Your task to perform on an android device: turn off improve location accuracy Image 0: 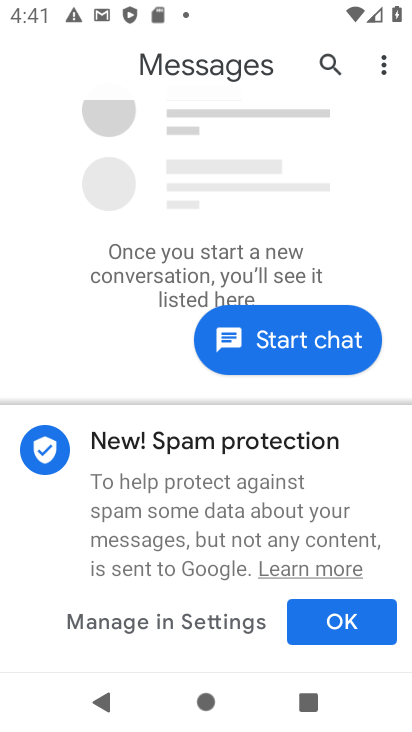
Step 0: press home button
Your task to perform on an android device: turn off improve location accuracy Image 1: 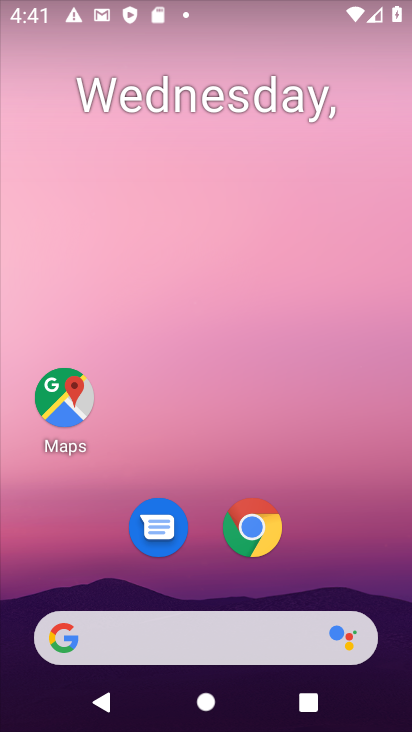
Step 1: drag from (207, 487) to (206, 219)
Your task to perform on an android device: turn off improve location accuracy Image 2: 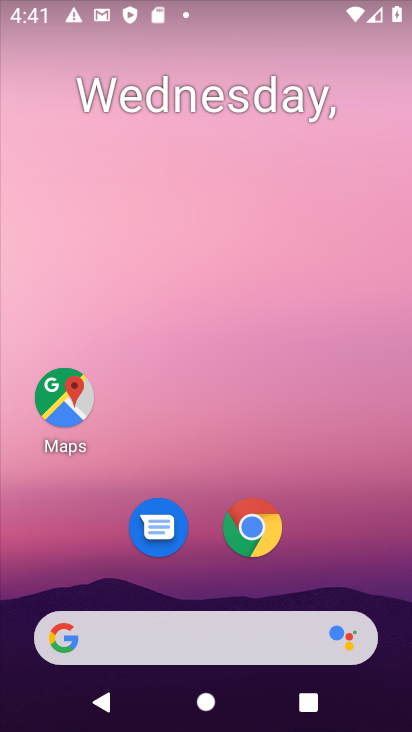
Step 2: drag from (188, 594) to (153, 187)
Your task to perform on an android device: turn off improve location accuracy Image 3: 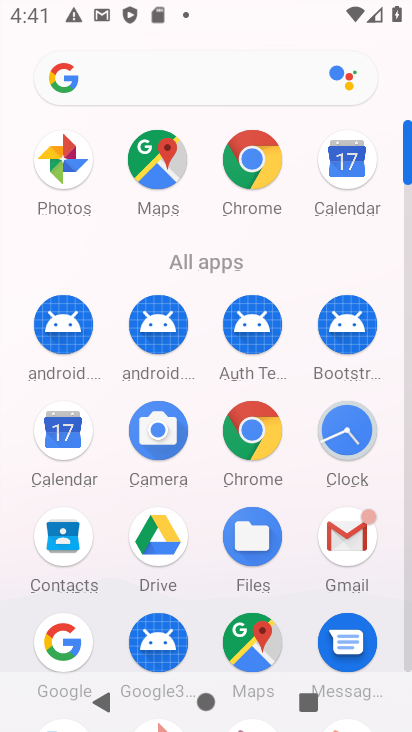
Step 3: drag from (90, 580) to (90, 306)
Your task to perform on an android device: turn off improve location accuracy Image 4: 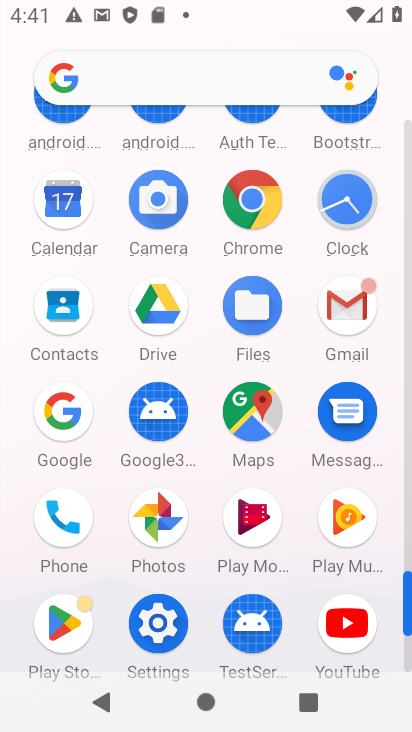
Step 4: click (158, 617)
Your task to perform on an android device: turn off improve location accuracy Image 5: 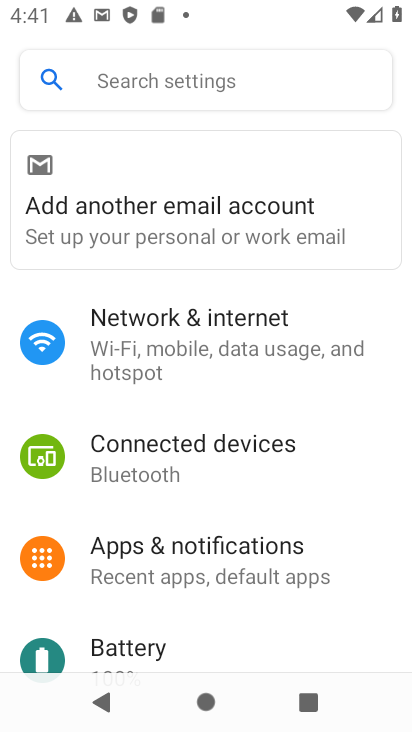
Step 5: drag from (125, 623) to (101, 325)
Your task to perform on an android device: turn off improve location accuracy Image 6: 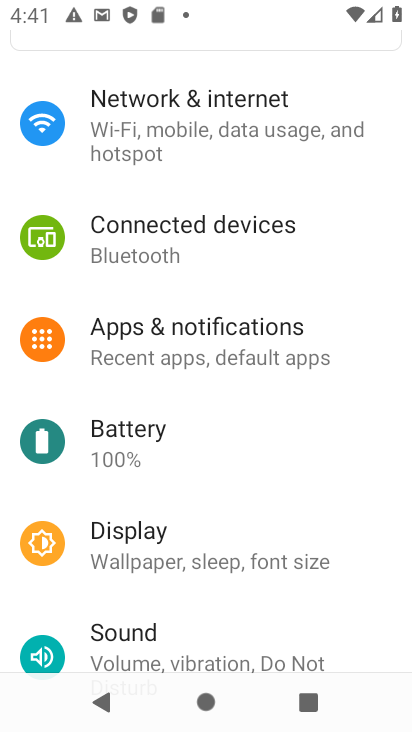
Step 6: drag from (105, 636) to (108, 374)
Your task to perform on an android device: turn off improve location accuracy Image 7: 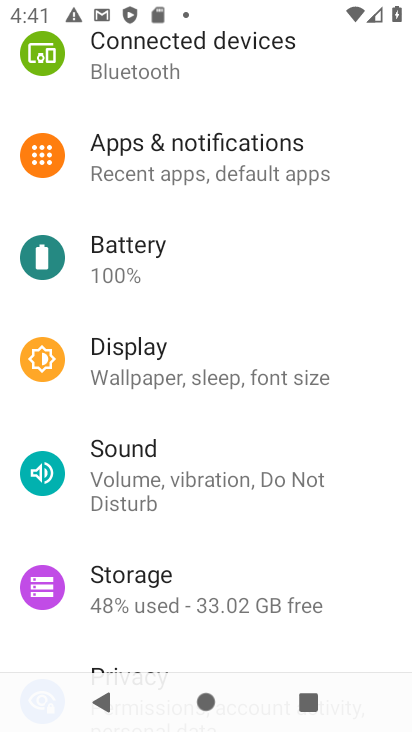
Step 7: drag from (123, 589) to (108, 405)
Your task to perform on an android device: turn off improve location accuracy Image 8: 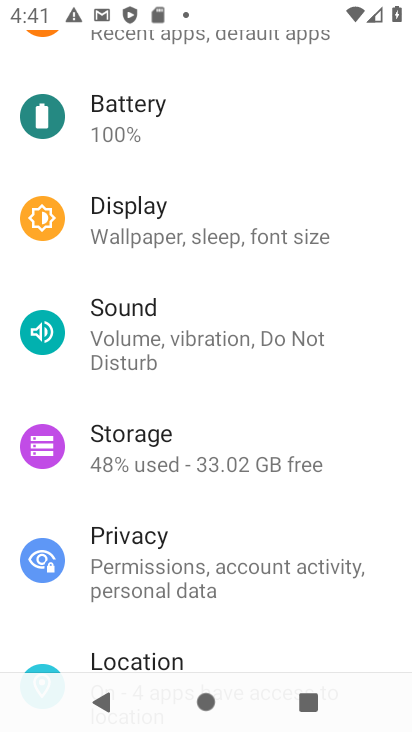
Step 8: click (89, 661)
Your task to perform on an android device: turn off improve location accuracy Image 9: 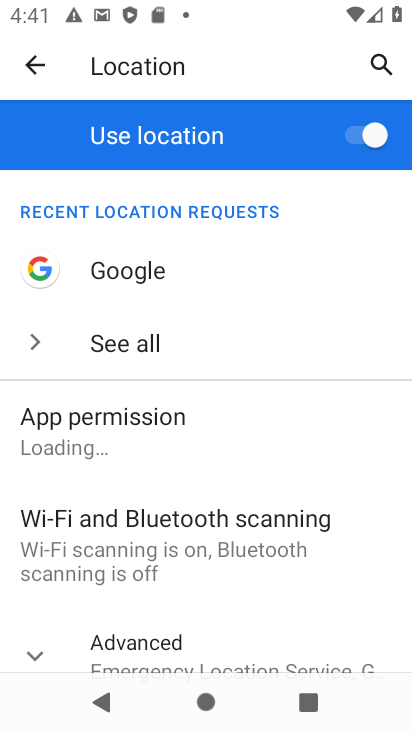
Step 9: drag from (154, 614) to (156, 334)
Your task to perform on an android device: turn off improve location accuracy Image 10: 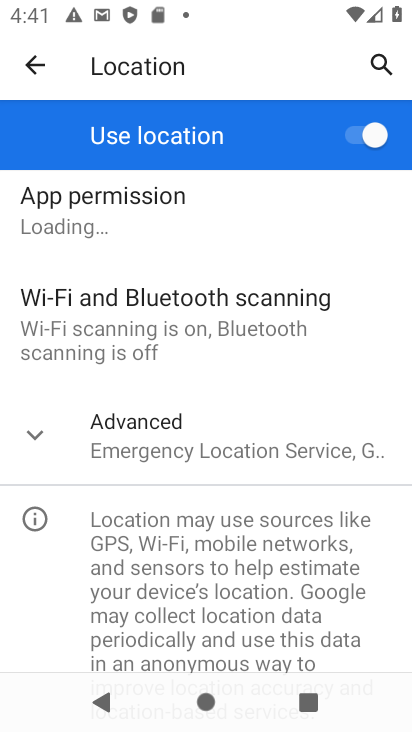
Step 10: click (111, 440)
Your task to perform on an android device: turn off improve location accuracy Image 11: 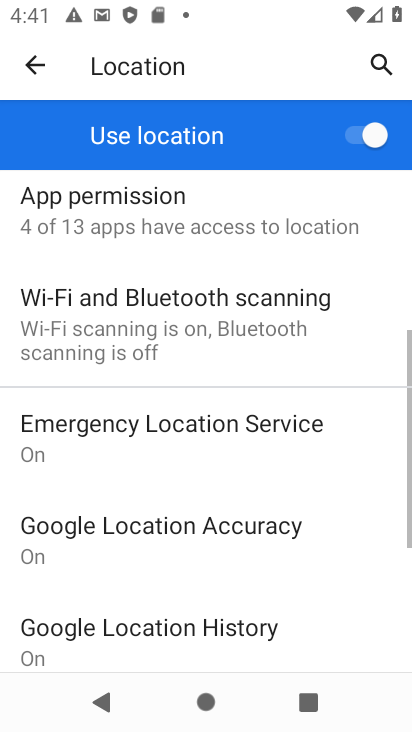
Step 11: click (153, 529)
Your task to perform on an android device: turn off improve location accuracy Image 12: 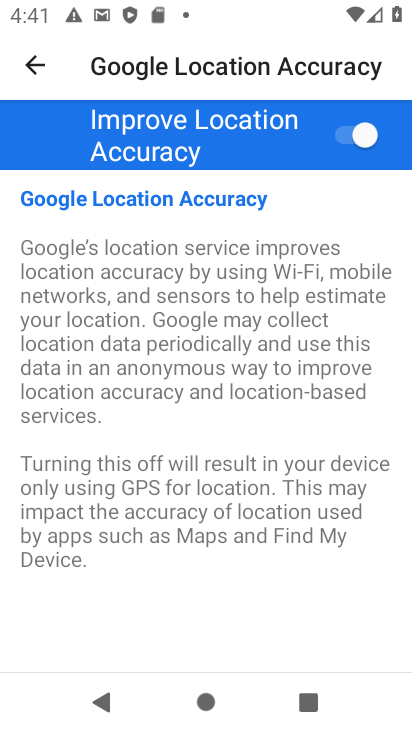
Step 12: click (344, 133)
Your task to perform on an android device: turn off improve location accuracy Image 13: 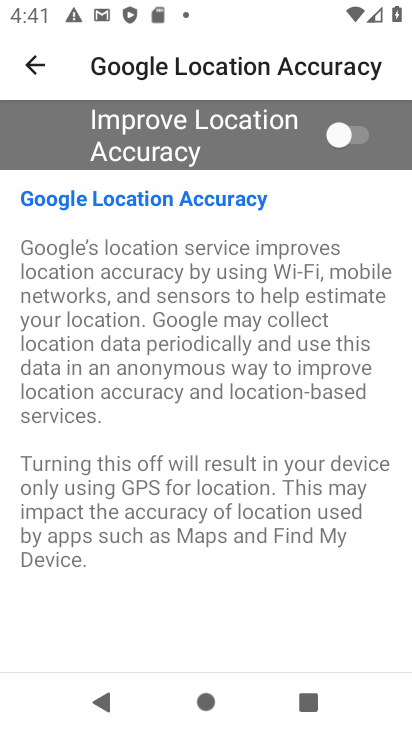
Step 13: task complete